Your task to perform on an android device: change the upload size in google photos Image 0: 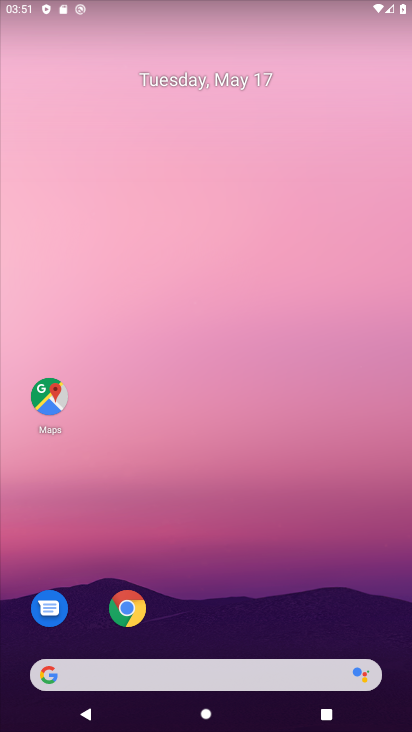
Step 0: drag from (211, 627) to (240, 249)
Your task to perform on an android device: change the upload size in google photos Image 1: 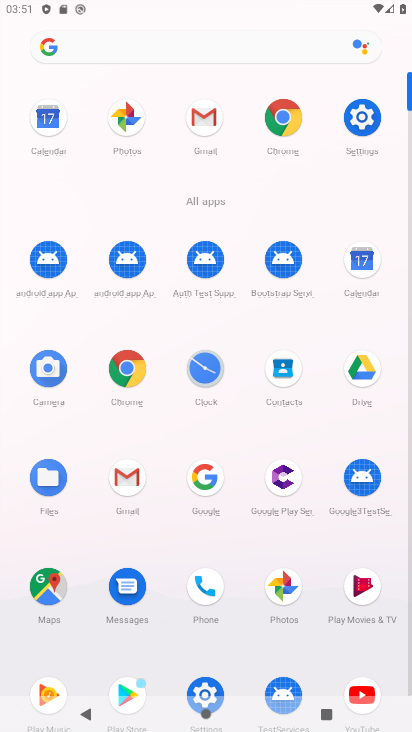
Step 1: click (284, 590)
Your task to perform on an android device: change the upload size in google photos Image 2: 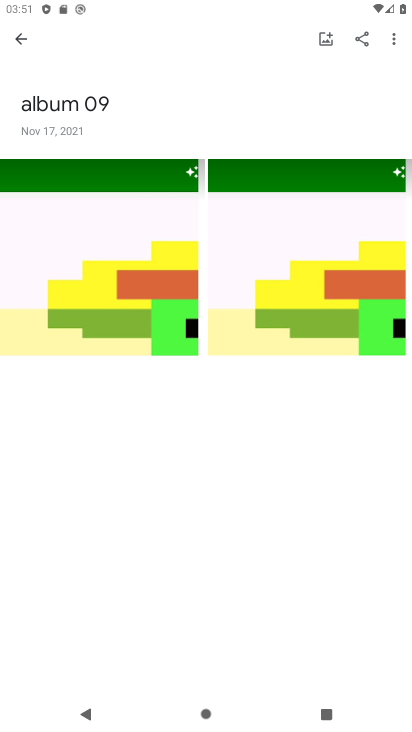
Step 2: click (25, 35)
Your task to perform on an android device: change the upload size in google photos Image 3: 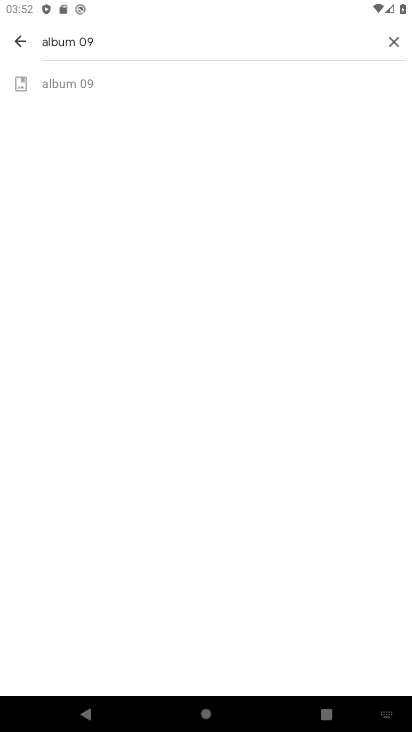
Step 3: click (18, 35)
Your task to perform on an android device: change the upload size in google photos Image 4: 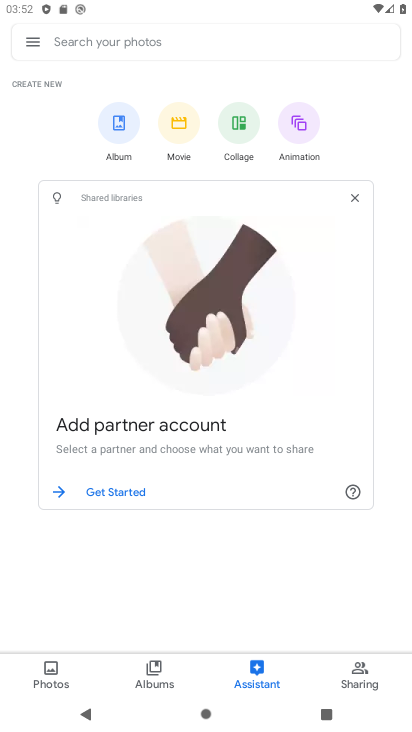
Step 4: click (36, 44)
Your task to perform on an android device: change the upload size in google photos Image 5: 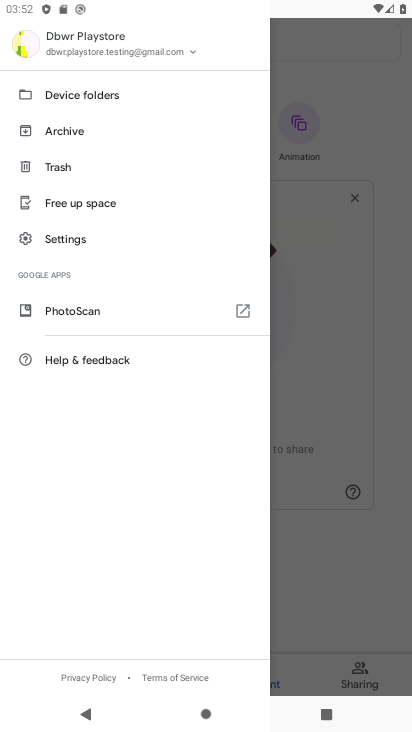
Step 5: click (72, 240)
Your task to perform on an android device: change the upload size in google photos Image 6: 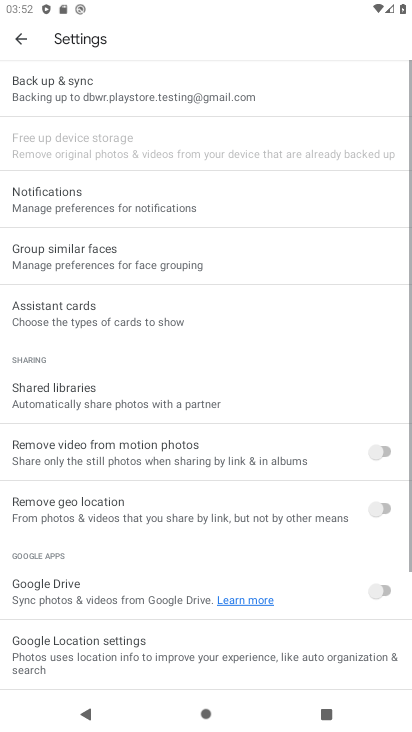
Step 6: click (161, 93)
Your task to perform on an android device: change the upload size in google photos Image 7: 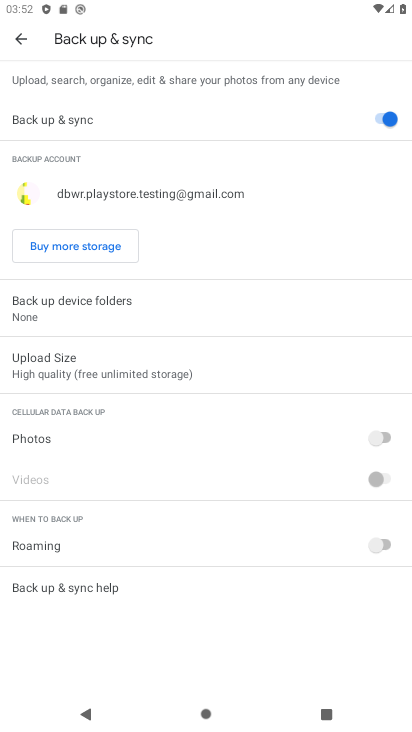
Step 7: click (60, 367)
Your task to perform on an android device: change the upload size in google photos Image 8: 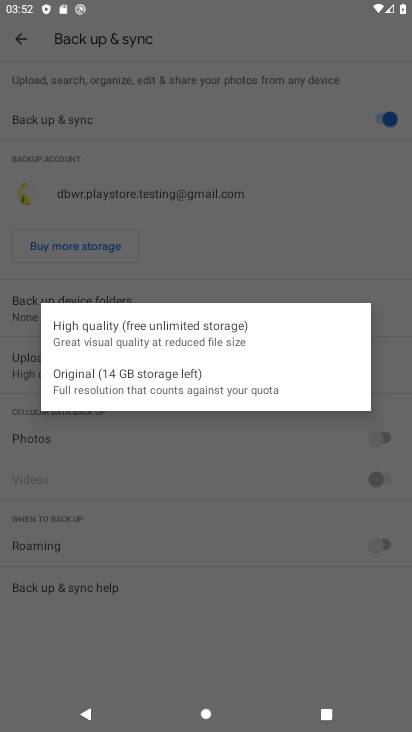
Step 8: click (76, 376)
Your task to perform on an android device: change the upload size in google photos Image 9: 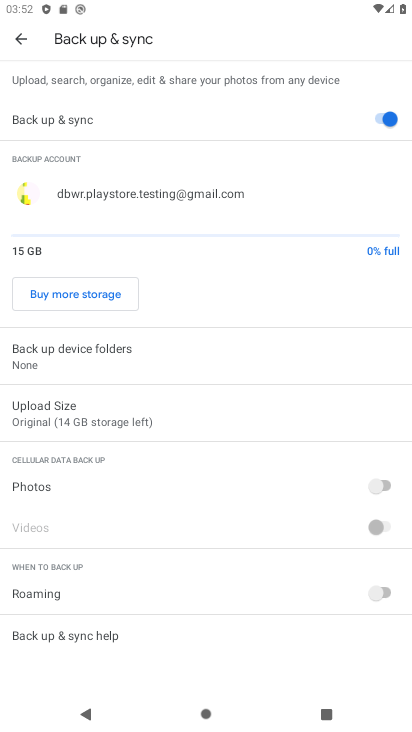
Step 9: task complete